Your task to perform on an android device: Check the news Image 0: 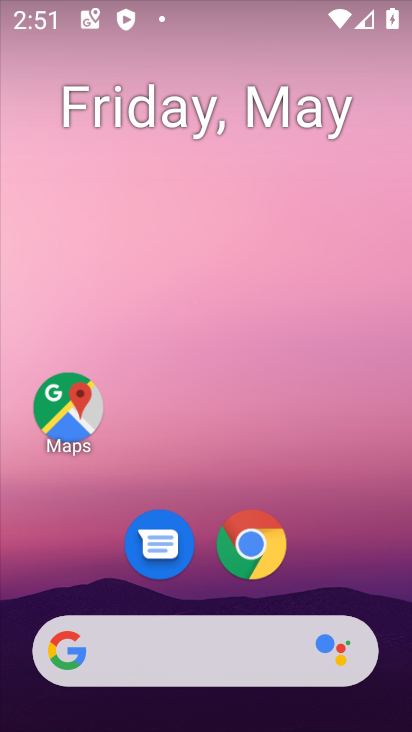
Step 0: drag from (232, 596) to (242, 196)
Your task to perform on an android device: Check the news Image 1: 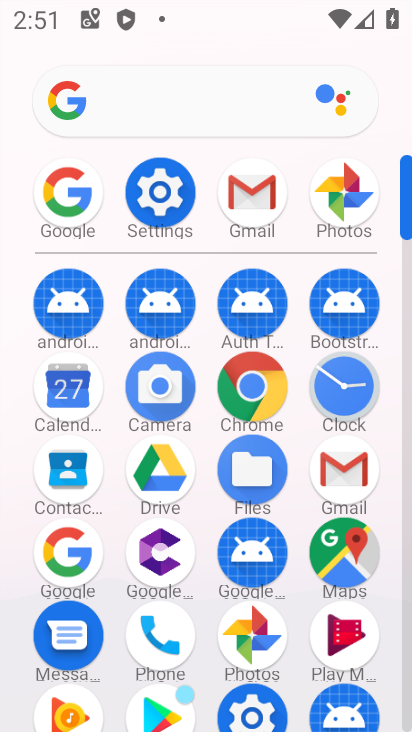
Step 1: click (70, 213)
Your task to perform on an android device: Check the news Image 2: 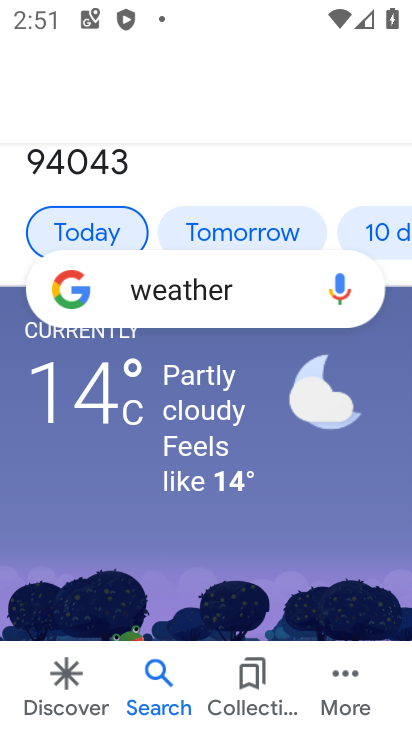
Step 2: click (251, 118)
Your task to perform on an android device: Check the news Image 3: 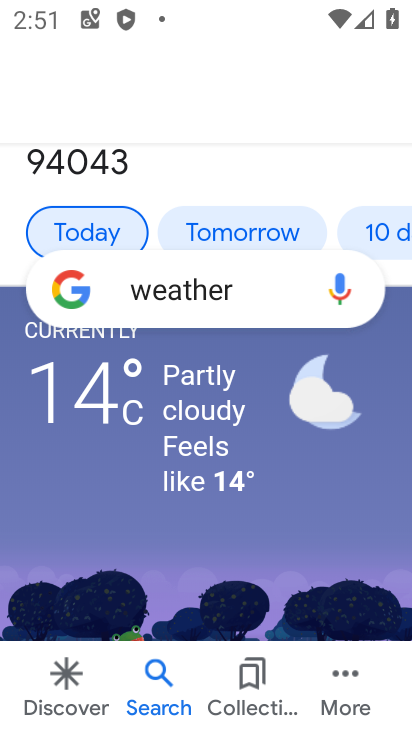
Step 3: click (237, 141)
Your task to perform on an android device: Check the news Image 4: 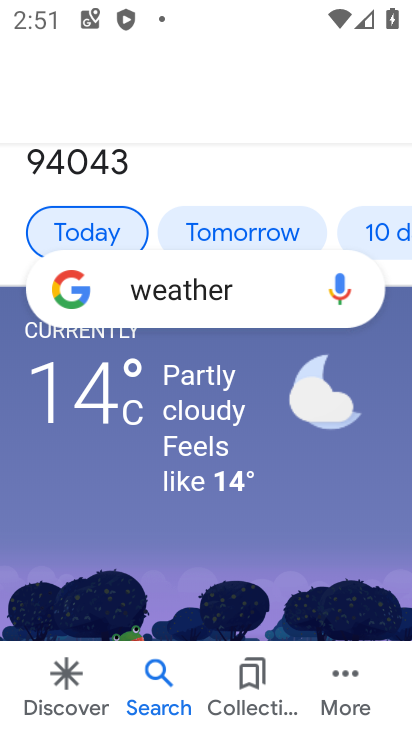
Step 4: click (248, 281)
Your task to perform on an android device: Check the news Image 5: 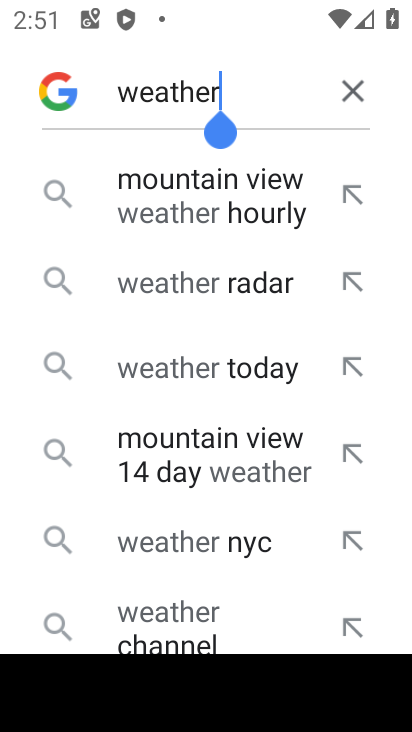
Step 5: click (352, 88)
Your task to perform on an android device: Check the news Image 6: 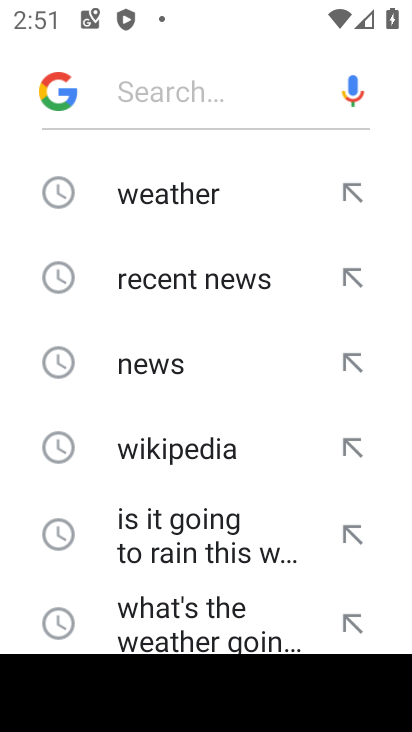
Step 6: click (145, 359)
Your task to perform on an android device: Check the news Image 7: 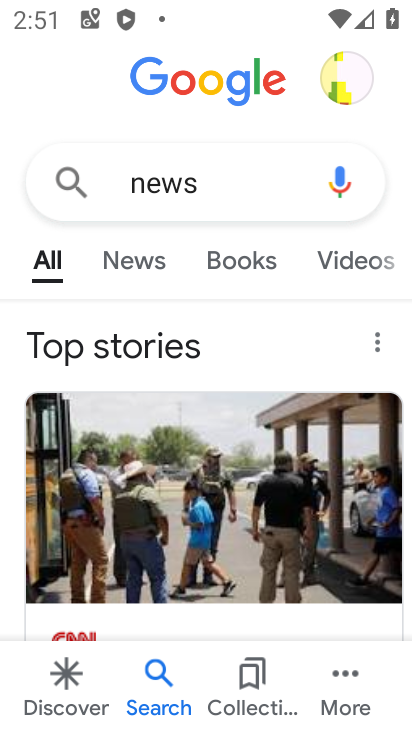
Step 7: click (128, 256)
Your task to perform on an android device: Check the news Image 8: 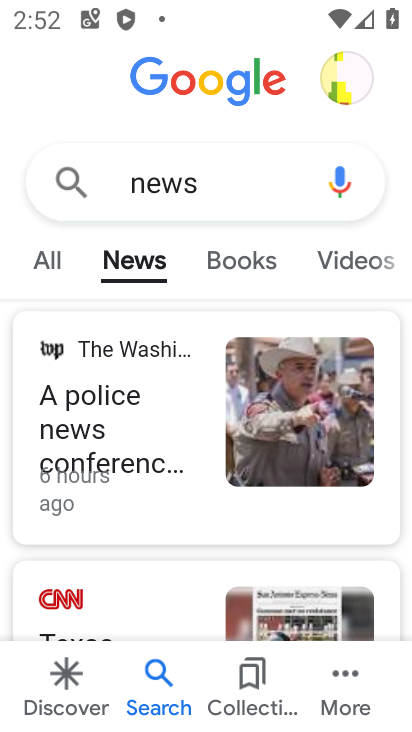
Step 8: task complete